Your task to perform on an android device: Go to notification settings Image 0: 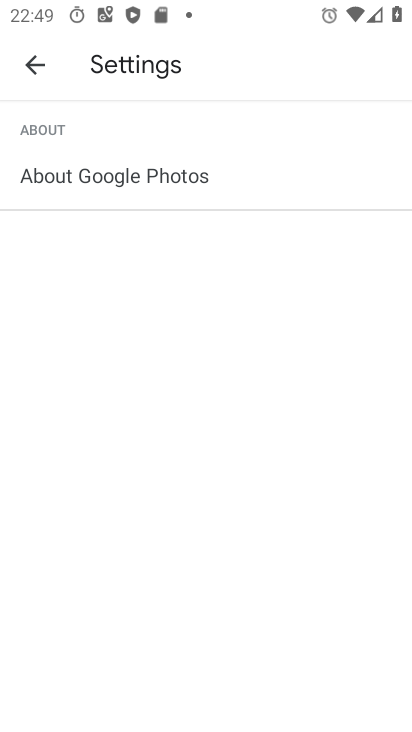
Step 0: press home button
Your task to perform on an android device: Go to notification settings Image 1: 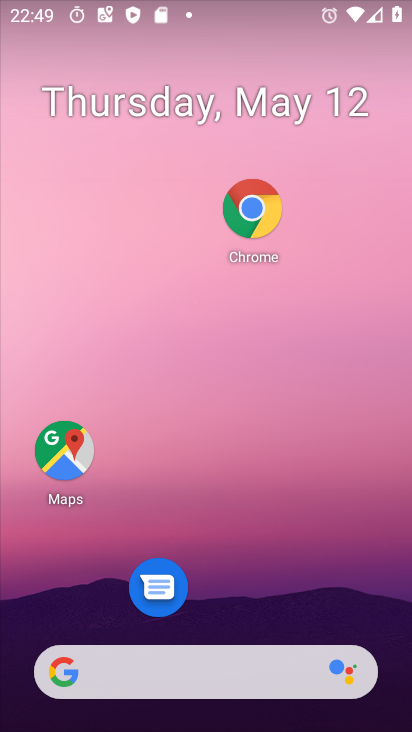
Step 1: drag from (280, 564) to (339, 281)
Your task to perform on an android device: Go to notification settings Image 2: 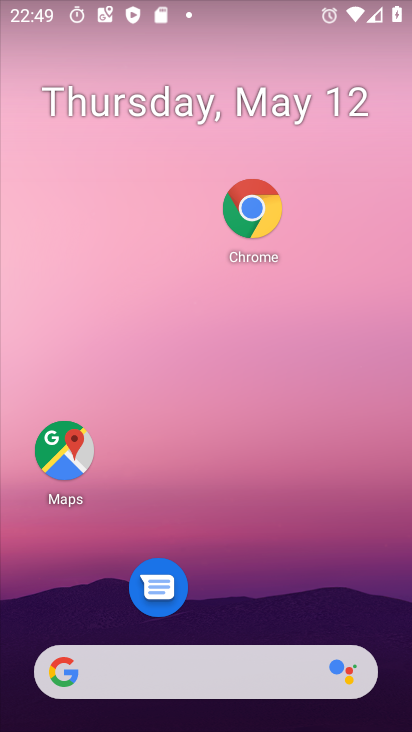
Step 2: drag from (279, 444) to (335, 197)
Your task to perform on an android device: Go to notification settings Image 3: 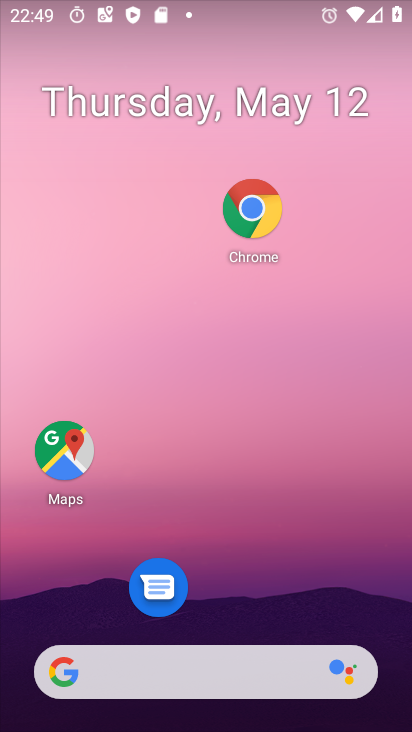
Step 3: drag from (283, 428) to (310, 181)
Your task to perform on an android device: Go to notification settings Image 4: 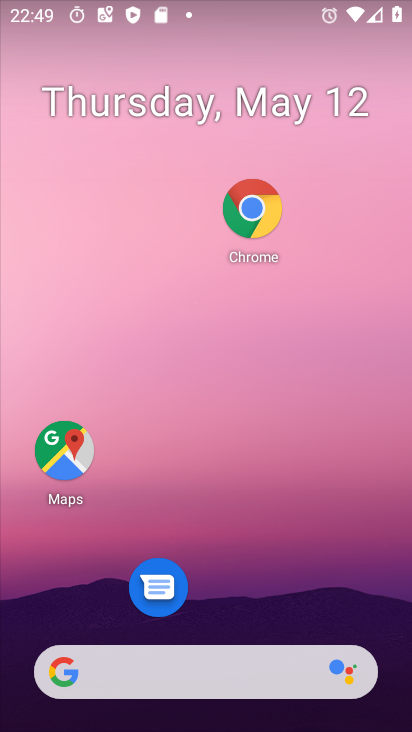
Step 4: drag from (234, 567) to (322, 137)
Your task to perform on an android device: Go to notification settings Image 5: 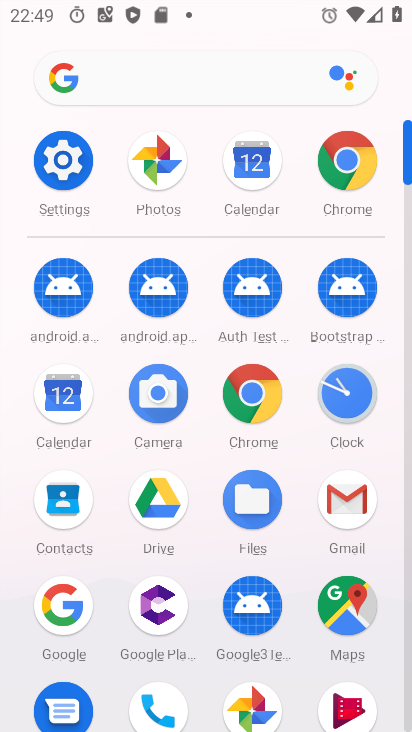
Step 5: click (70, 159)
Your task to perform on an android device: Go to notification settings Image 6: 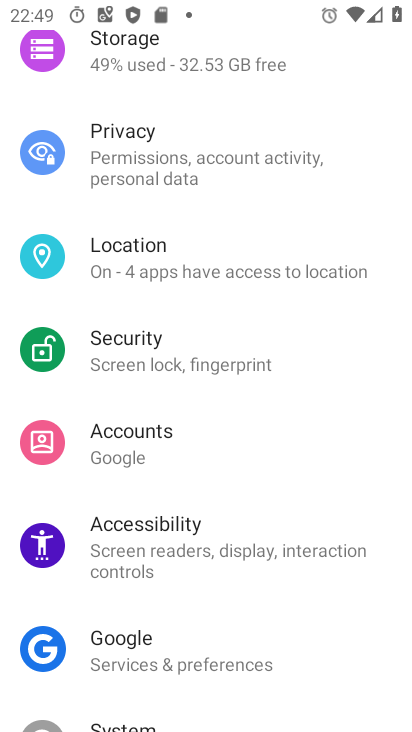
Step 6: drag from (224, 79) to (171, 540)
Your task to perform on an android device: Go to notification settings Image 7: 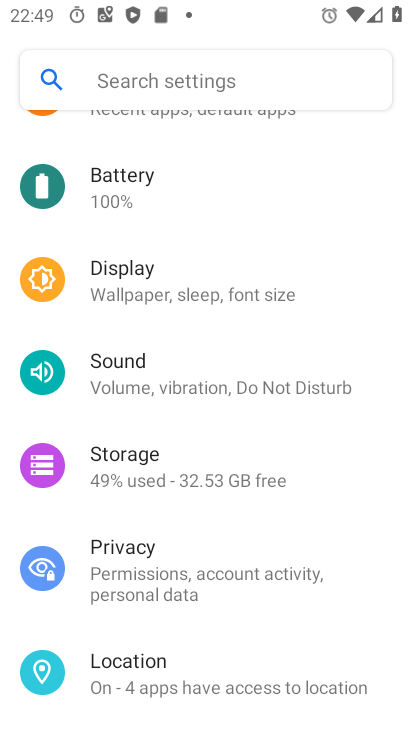
Step 7: drag from (168, 164) to (157, 509)
Your task to perform on an android device: Go to notification settings Image 8: 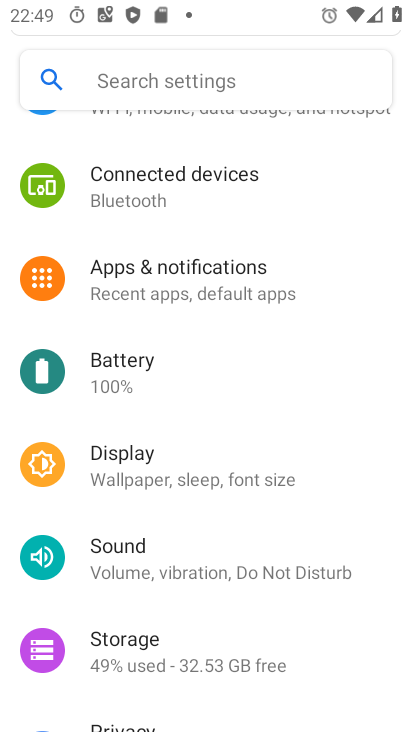
Step 8: drag from (194, 177) to (169, 679)
Your task to perform on an android device: Go to notification settings Image 9: 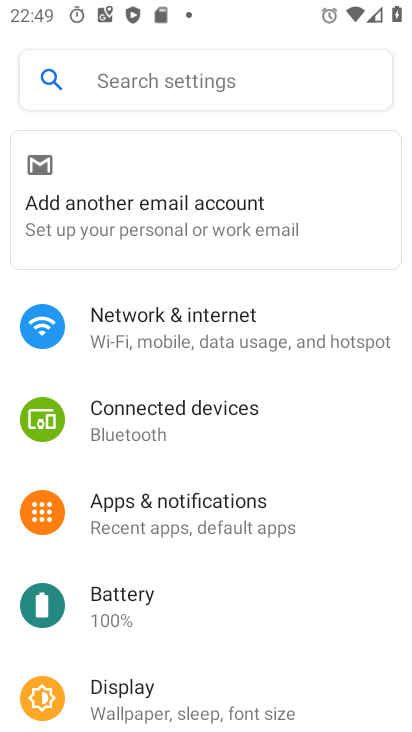
Step 9: click (200, 338)
Your task to perform on an android device: Go to notification settings Image 10: 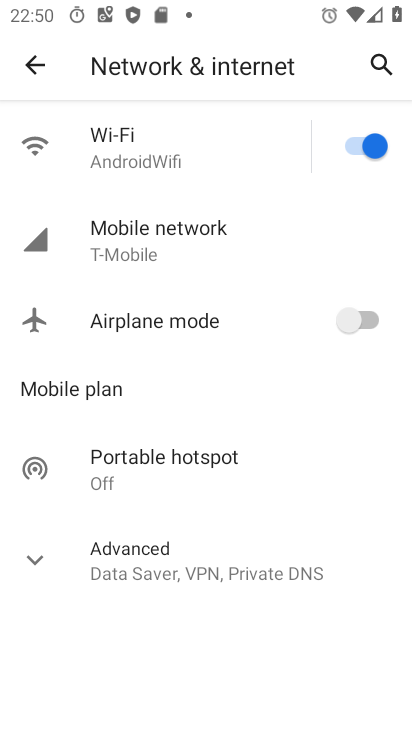
Step 10: press back button
Your task to perform on an android device: Go to notification settings Image 11: 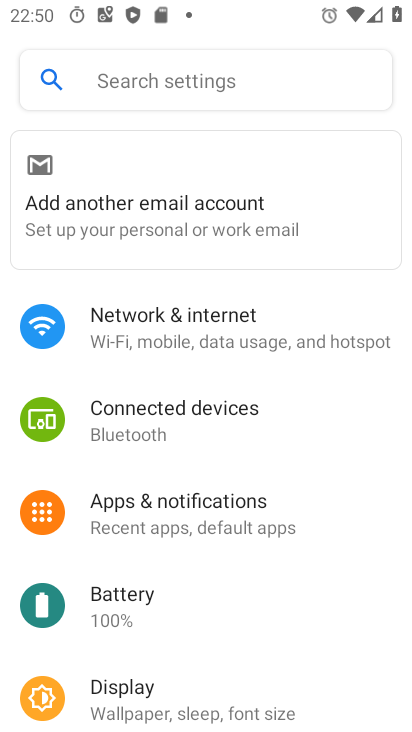
Step 11: click (151, 508)
Your task to perform on an android device: Go to notification settings Image 12: 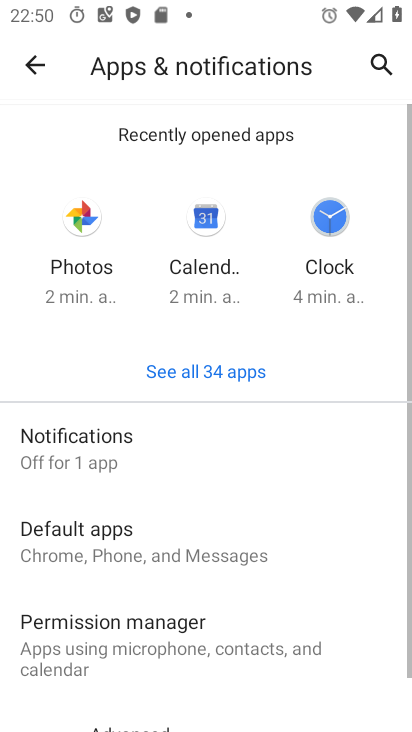
Step 12: click (128, 438)
Your task to perform on an android device: Go to notification settings Image 13: 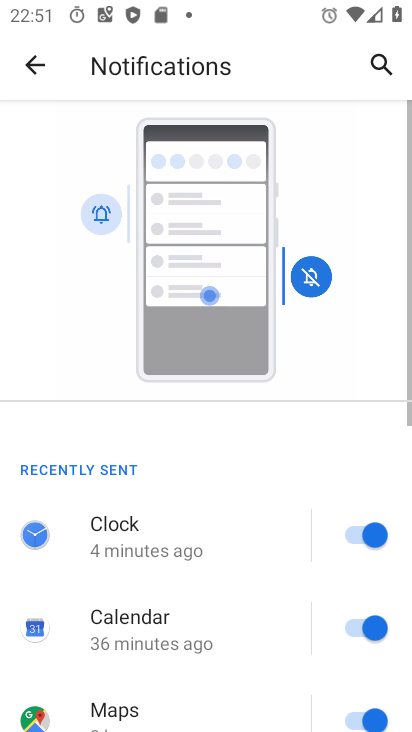
Step 13: task complete